Your task to perform on an android device: toggle sleep mode Image 0: 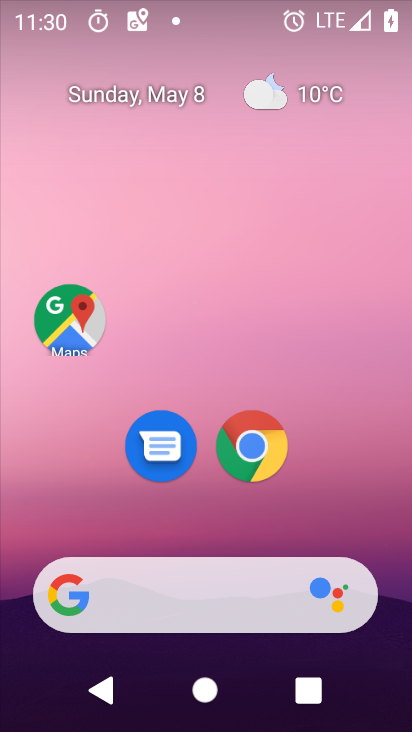
Step 0: drag from (378, 545) to (347, 4)
Your task to perform on an android device: toggle sleep mode Image 1: 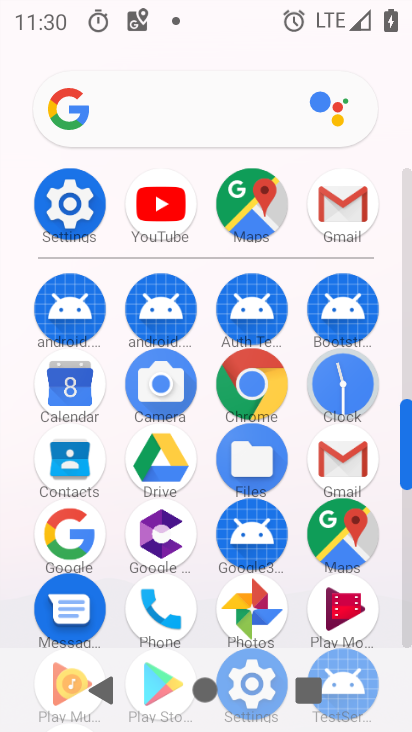
Step 1: click (73, 210)
Your task to perform on an android device: toggle sleep mode Image 2: 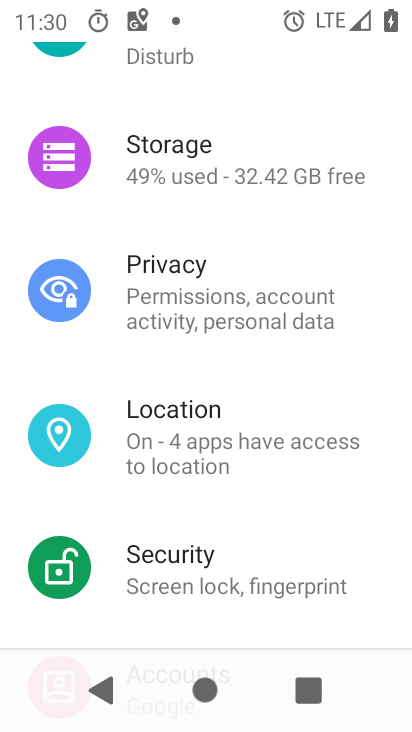
Step 2: drag from (304, 368) to (330, 621)
Your task to perform on an android device: toggle sleep mode Image 3: 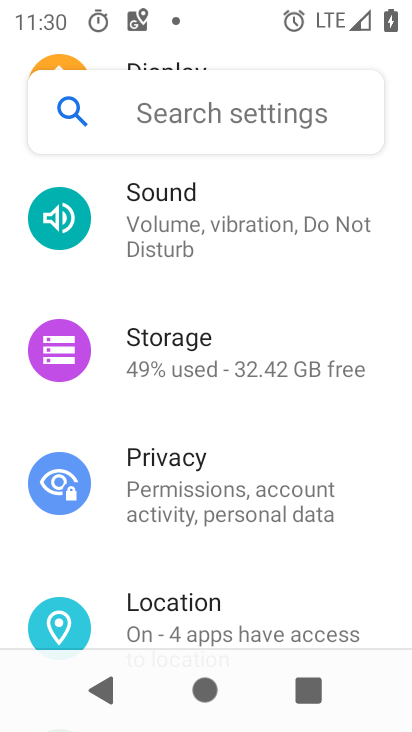
Step 3: drag from (296, 271) to (345, 565)
Your task to perform on an android device: toggle sleep mode Image 4: 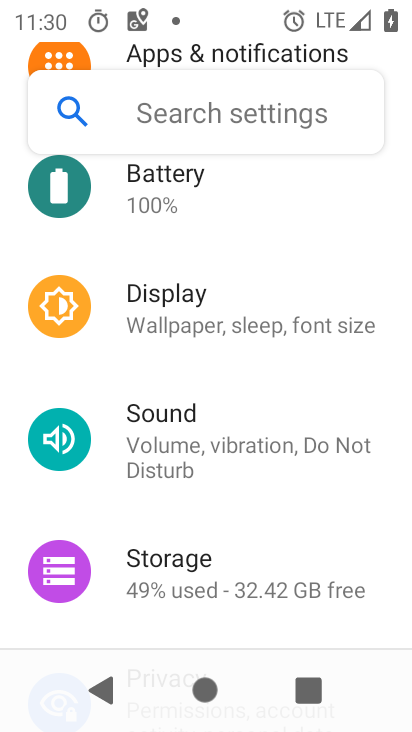
Step 4: click (195, 324)
Your task to perform on an android device: toggle sleep mode Image 5: 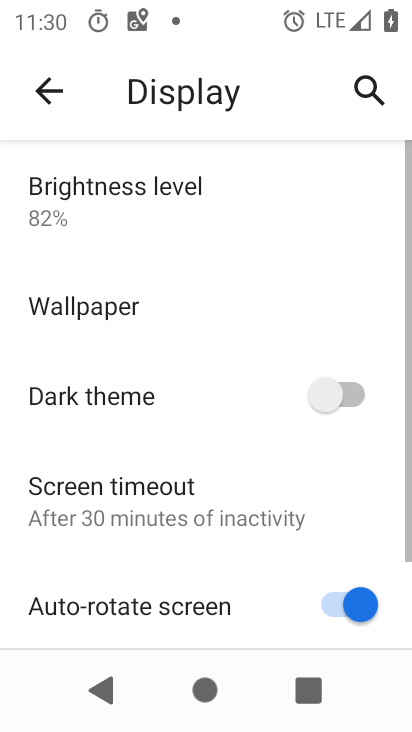
Step 5: drag from (231, 520) to (201, 109)
Your task to perform on an android device: toggle sleep mode Image 6: 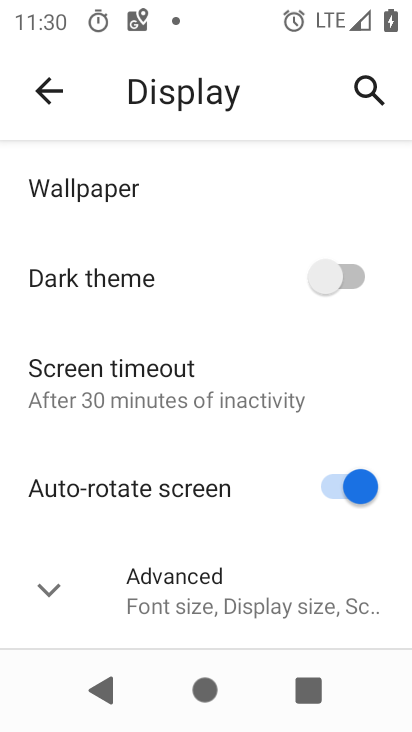
Step 6: click (52, 591)
Your task to perform on an android device: toggle sleep mode Image 7: 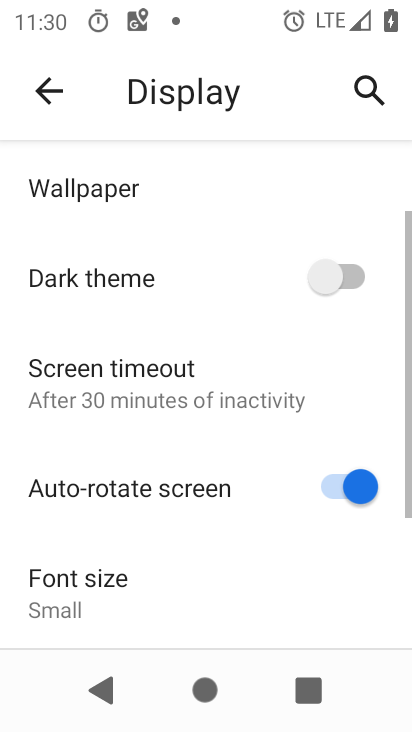
Step 7: task complete